Your task to perform on an android device: turn on location history Image 0: 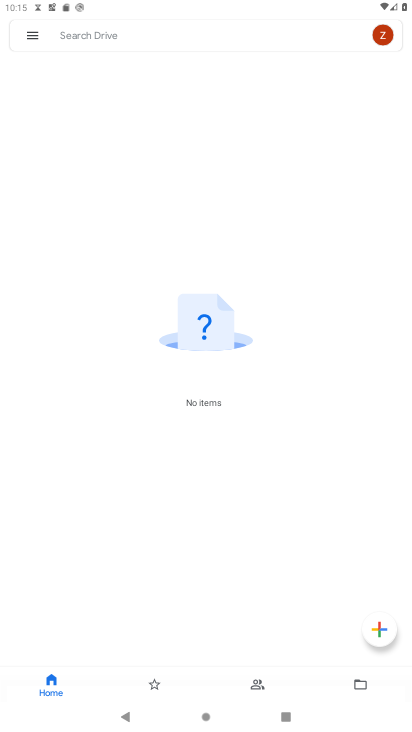
Step 0: press home button
Your task to perform on an android device: turn on location history Image 1: 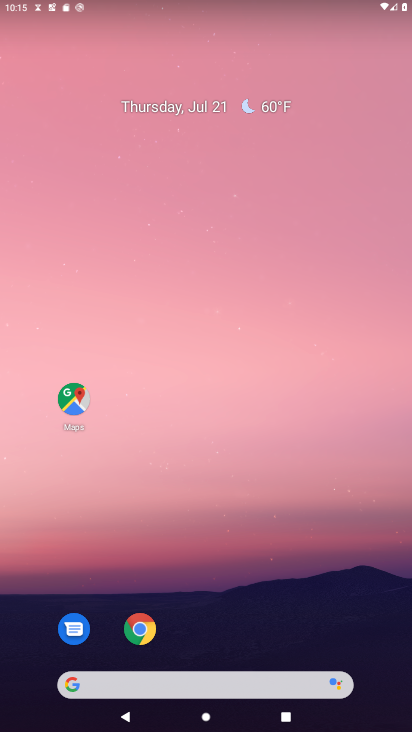
Step 1: drag from (253, 621) to (268, 206)
Your task to perform on an android device: turn on location history Image 2: 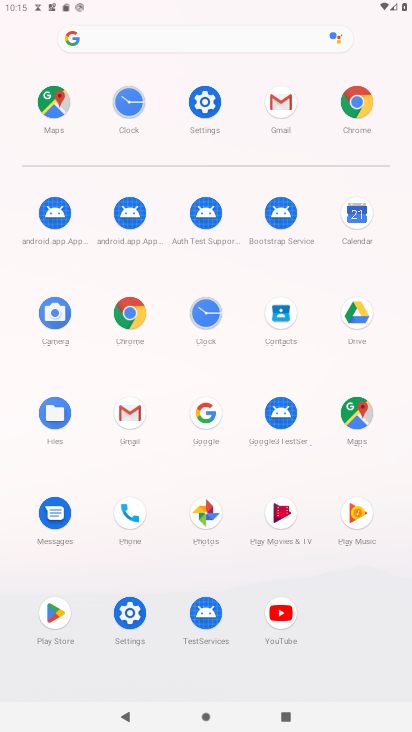
Step 2: click (199, 102)
Your task to perform on an android device: turn on location history Image 3: 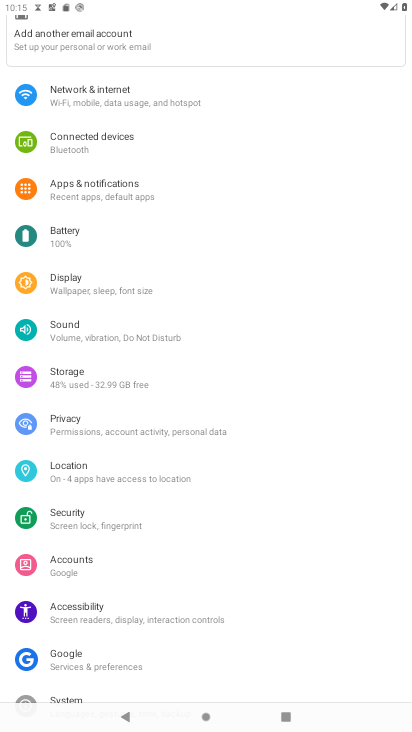
Step 3: click (88, 460)
Your task to perform on an android device: turn on location history Image 4: 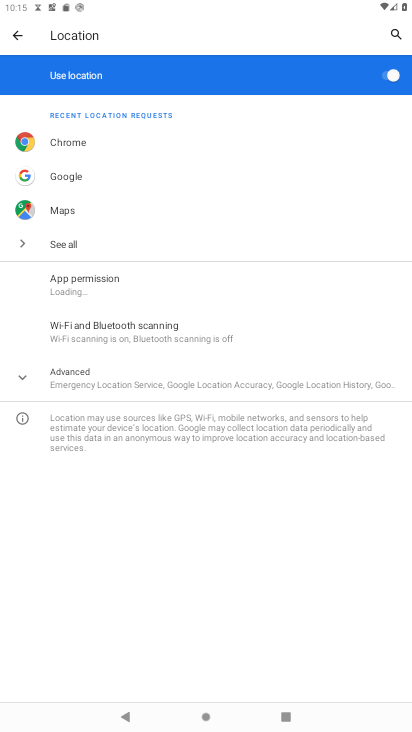
Step 4: click (104, 383)
Your task to perform on an android device: turn on location history Image 5: 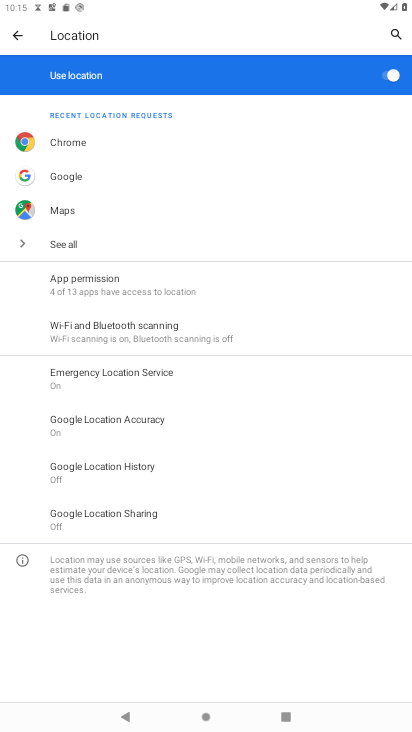
Step 5: click (145, 458)
Your task to perform on an android device: turn on location history Image 6: 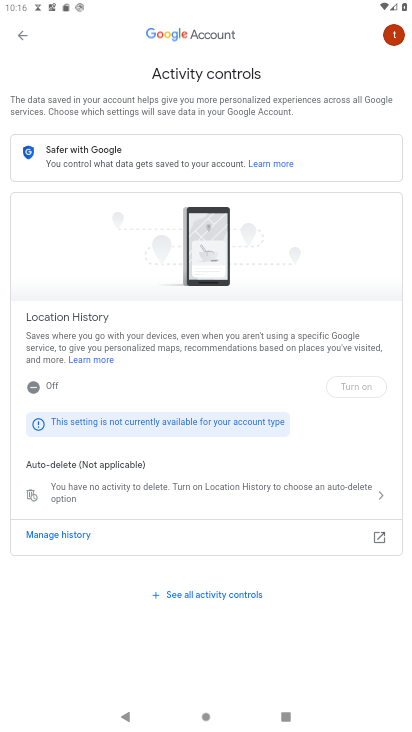
Step 6: click (377, 379)
Your task to perform on an android device: turn on location history Image 7: 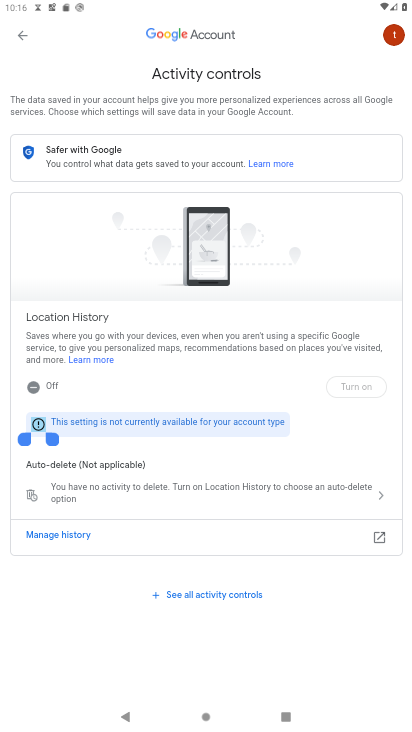
Step 7: click (108, 375)
Your task to perform on an android device: turn on location history Image 8: 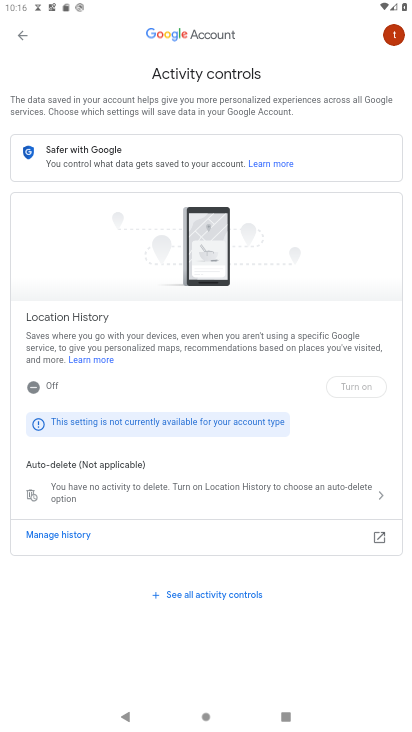
Step 8: click (353, 381)
Your task to perform on an android device: turn on location history Image 9: 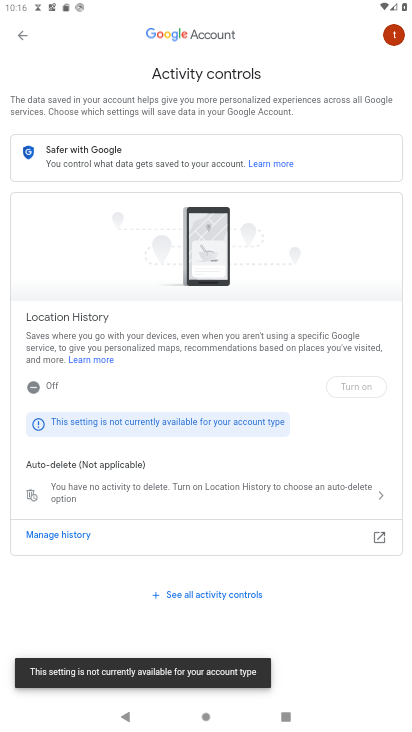
Step 9: click (353, 381)
Your task to perform on an android device: turn on location history Image 10: 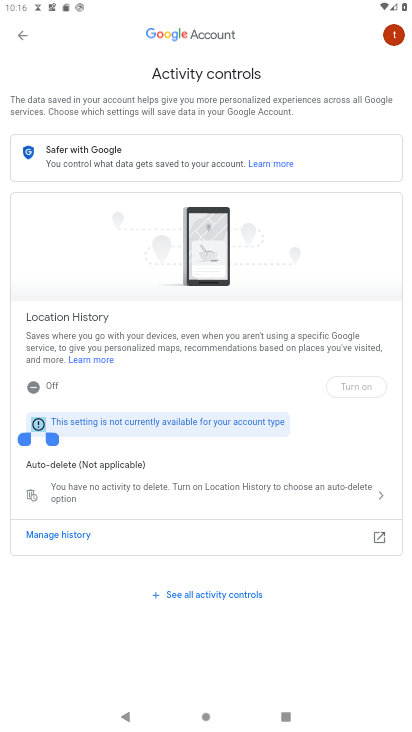
Step 10: click (235, 399)
Your task to perform on an android device: turn on location history Image 11: 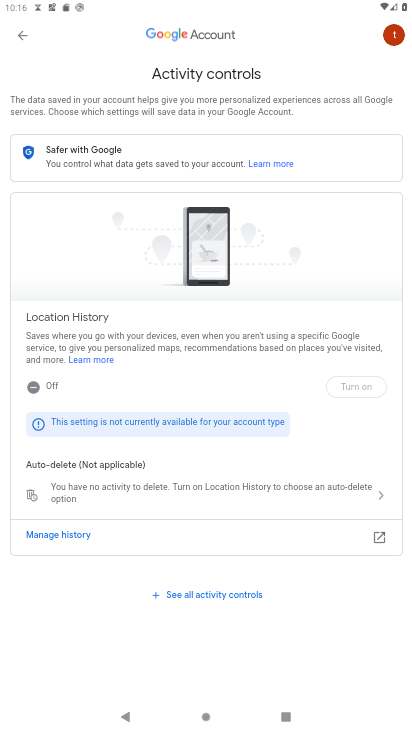
Step 11: task complete